Your task to perform on an android device: turn off improve location accuracy Image 0: 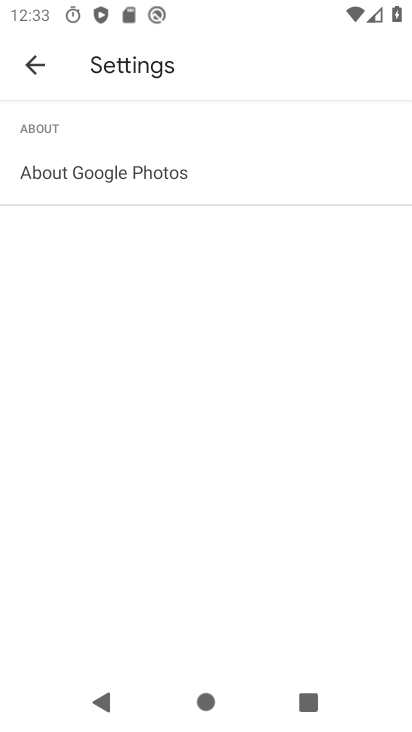
Step 0: press back button
Your task to perform on an android device: turn off improve location accuracy Image 1: 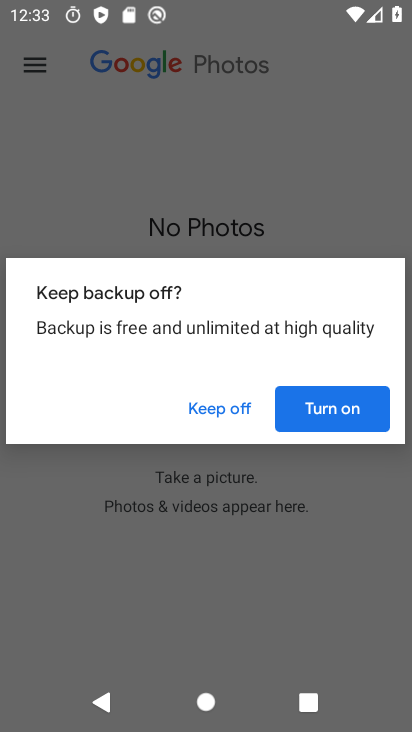
Step 1: press back button
Your task to perform on an android device: turn off improve location accuracy Image 2: 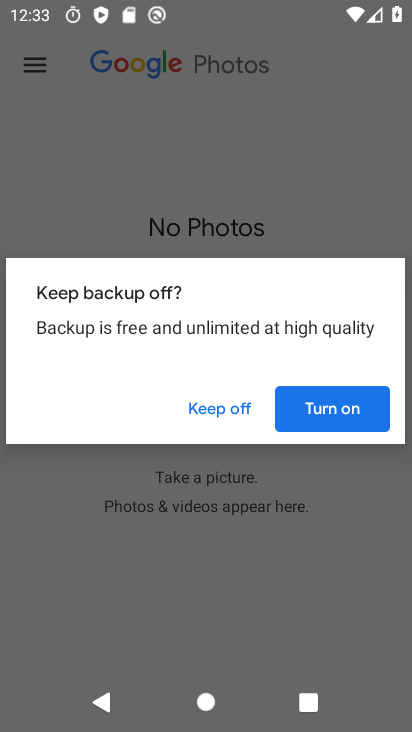
Step 2: press home button
Your task to perform on an android device: turn off improve location accuracy Image 3: 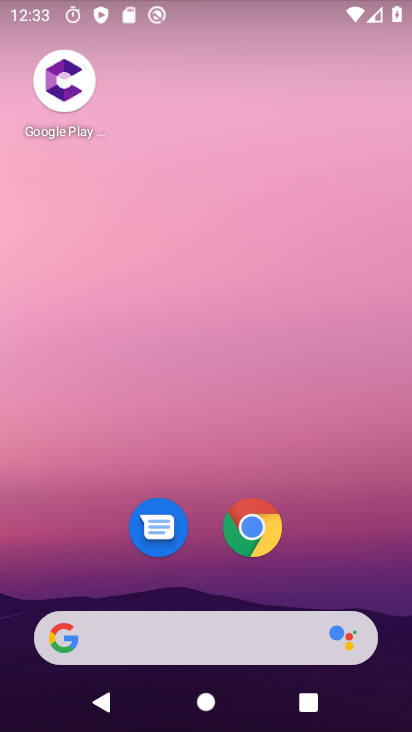
Step 3: drag from (186, 417) to (259, 0)
Your task to perform on an android device: turn off improve location accuracy Image 4: 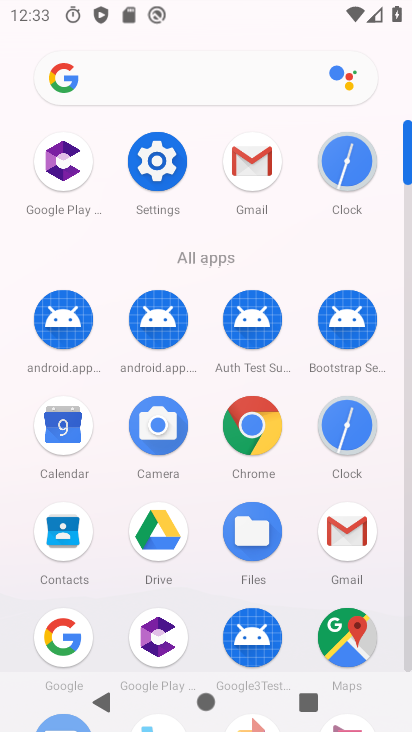
Step 4: click (156, 167)
Your task to perform on an android device: turn off improve location accuracy Image 5: 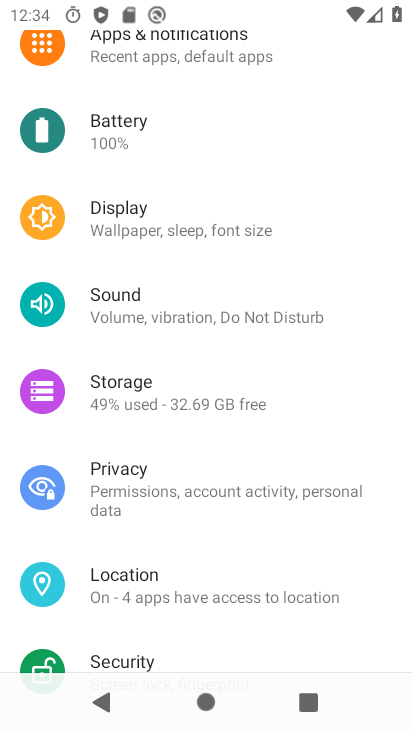
Step 5: click (128, 575)
Your task to perform on an android device: turn off improve location accuracy Image 6: 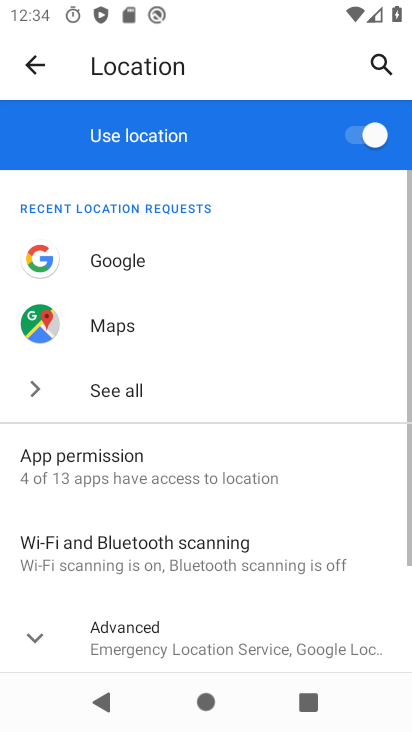
Step 6: drag from (129, 578) to (224, 75)
Your task to perform on an android device: turn off improve location accuracy Image 7: 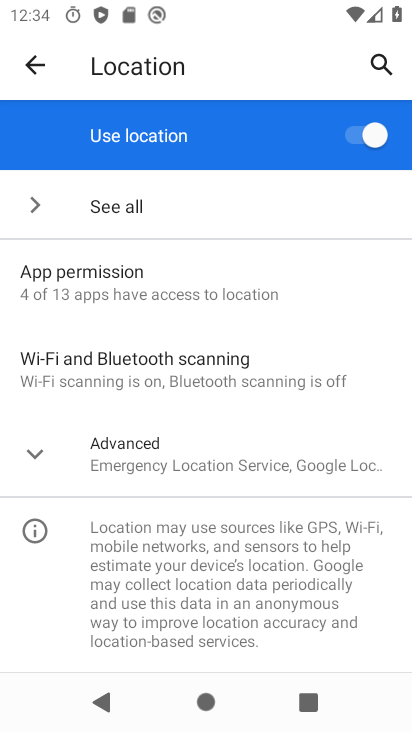
Step 7: click (175, 461)
Your task to perform on an android device: turn off improve location accuracy Image 8: 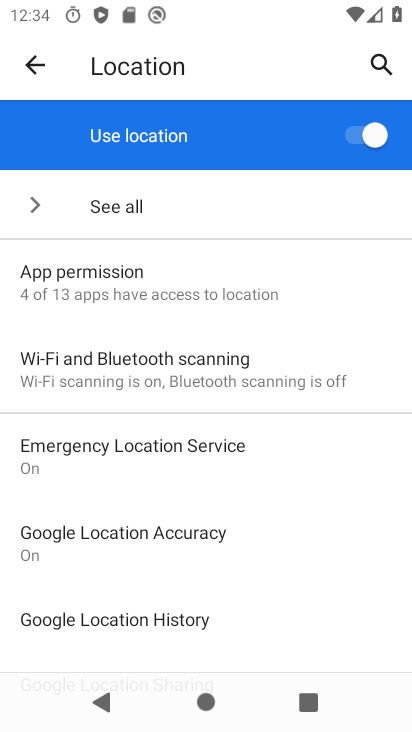
Step 8: click (130, 537)
Your task to perform on an android device: turn off improve location accuracy Image 9: 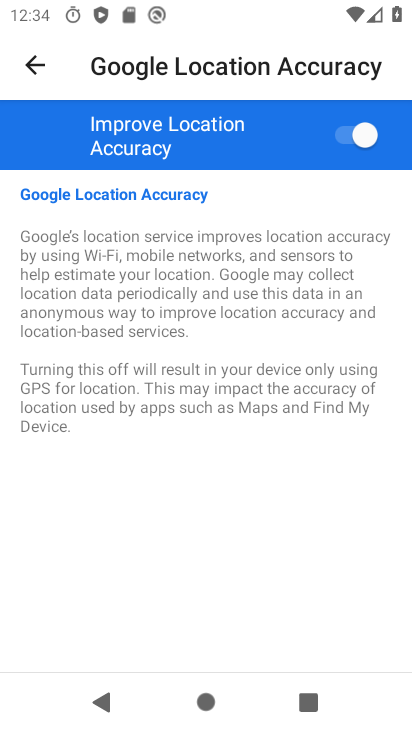
Step 9: click (364, 131)
Your task to perform on an android device: turn off improve location accuracy Image 10: 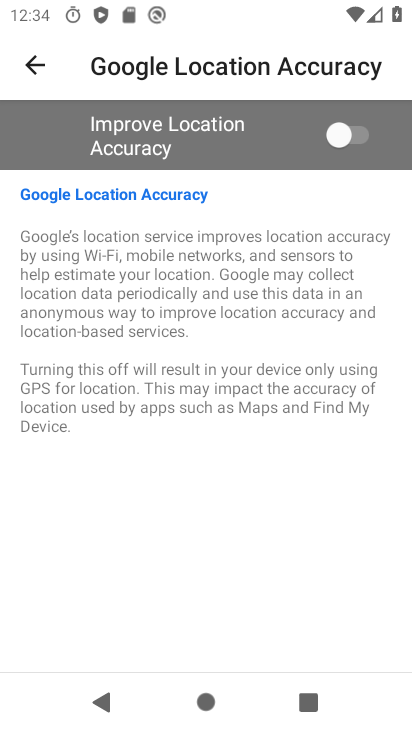
Step 10: task complete